Your task to perform on an android device: open app "LiveIn - Share Your Moment" (install if not already installed) and enter user name: "certifies@gmail.com" and password: "compartmented" Image 0: 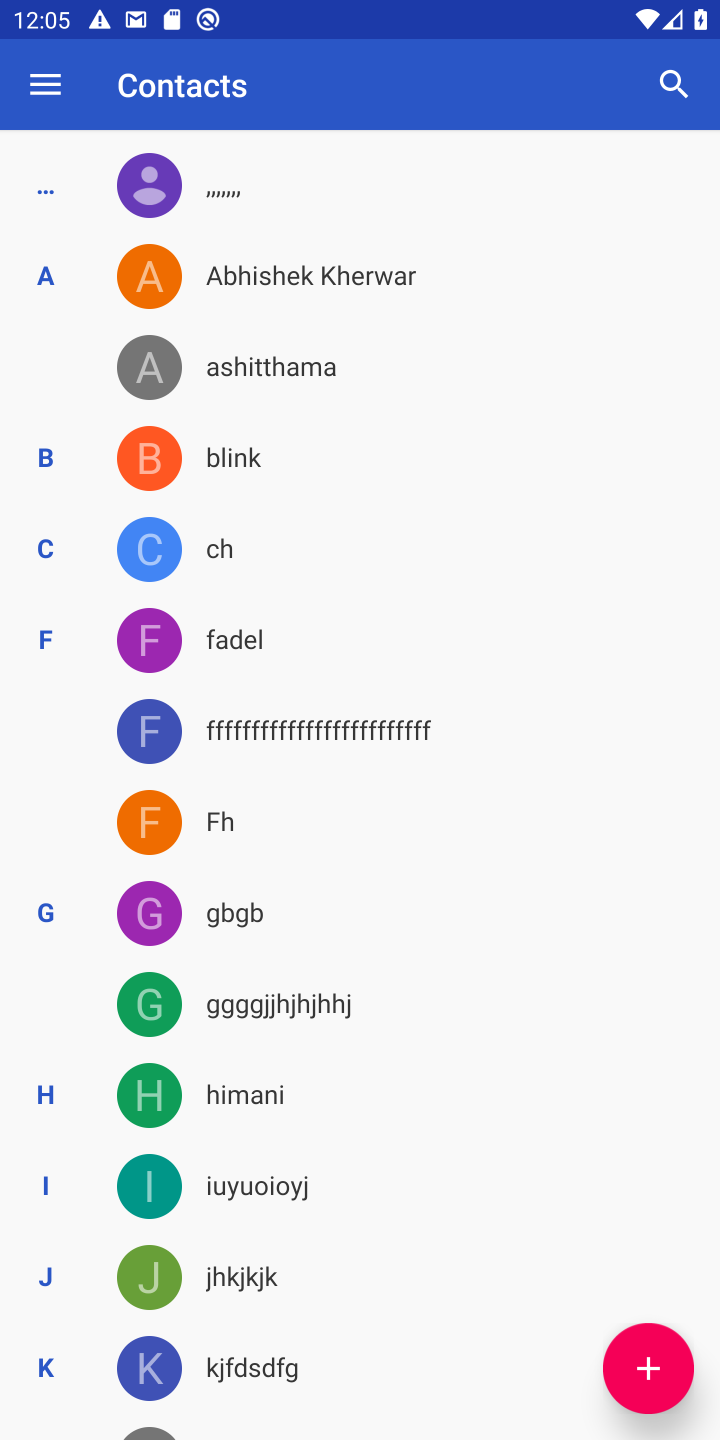
Step 0: press home button
Your task to perform on an android device: open app "LiveIn - Share Your Moment" (install if not already installed) and enter user name: "certifies@gmail.com" and password: "compartmented" Image 1: 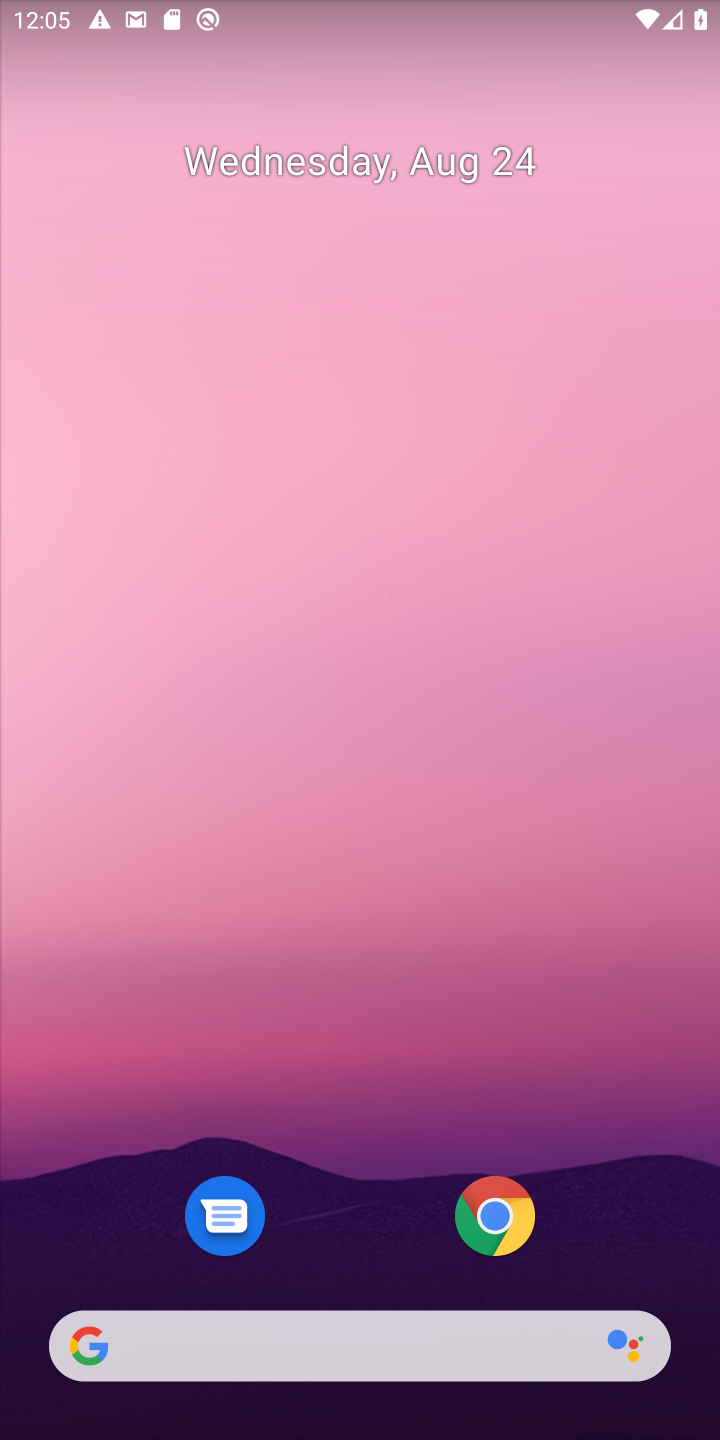
Step 1: drag from (288, 1358) to (577, 216)
Your task to perform on an android device: open app "LiveIn - Share Your Moment" (install if not already installed) and enter user name: "certifies@gmail.com" and password: "compartmented" Image 2: 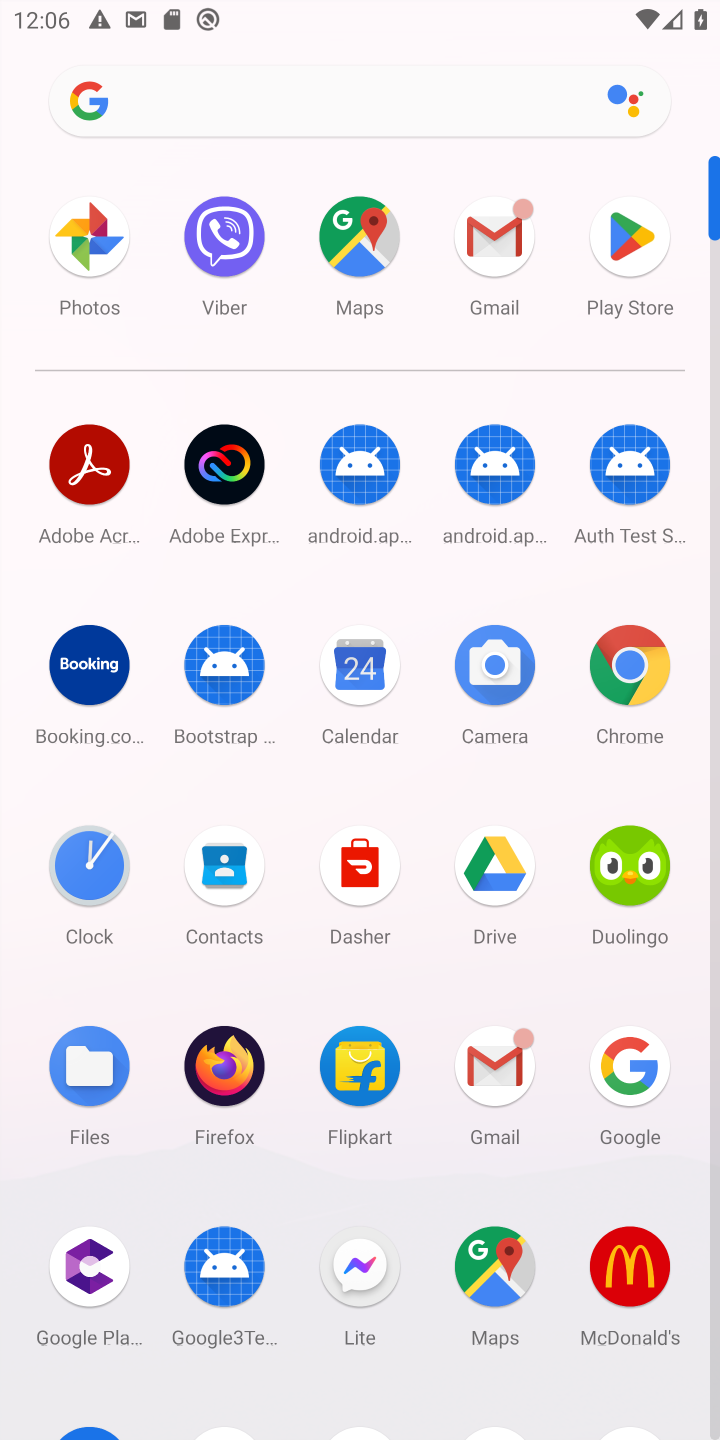
Step 2: click (624, 239)
Your task to perform on an android device: open app "LiveIn - Share Your Moment" (install if not already installed) and enter user name: "certifies@gmail.com" and password: "compartmented" Image 3: 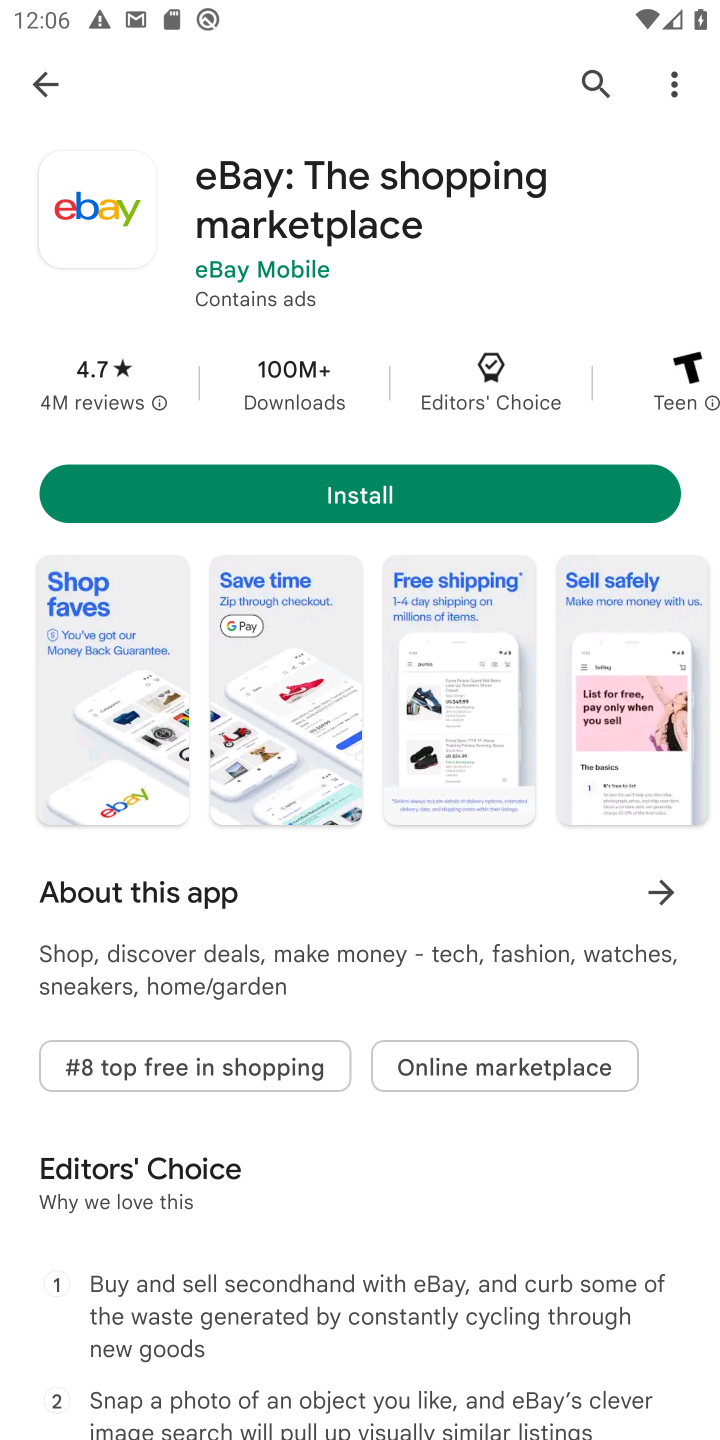
Step 3: press back button
Your task to perform on an android device: open app "LiveIn - Share Your Moment" (install if not already installed) and enter user name: "certifies@gmail.com" and password: "compartmented" Image 4: 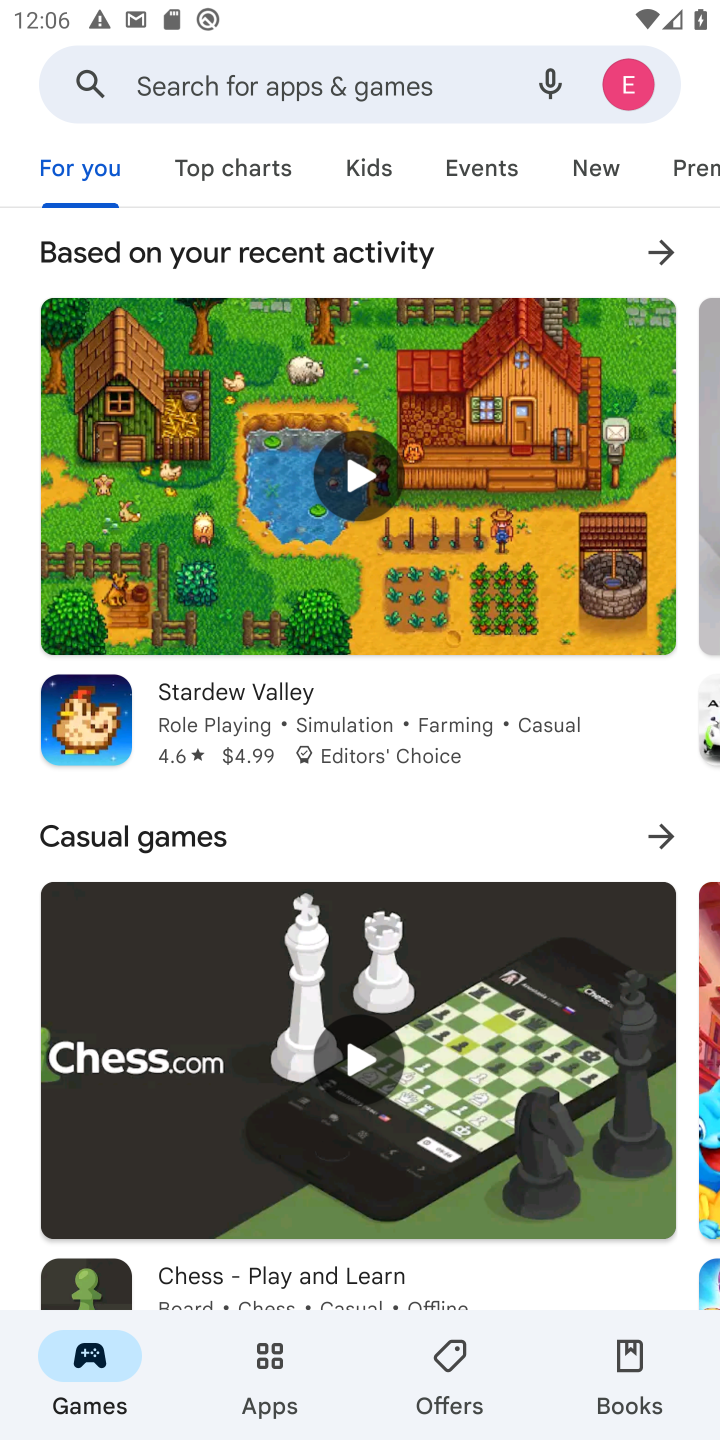
Step 4: click (342, 62)
Your task to perform on an android device: open app "LiveIn - Share Your Moment" (install if not already installed) and enter user name: "certifies@gmail.com" and password: "compartmented" Image 5: 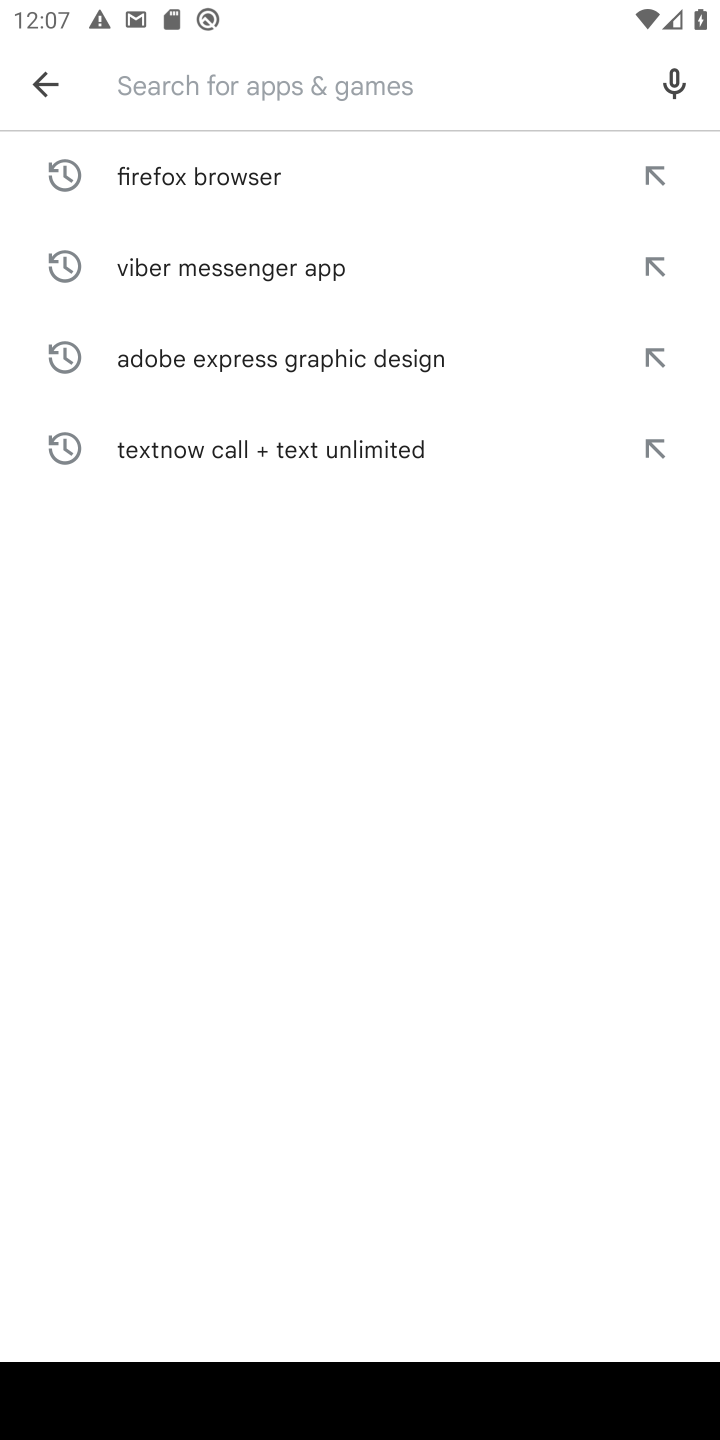
Step 5: type "LiveIn - Share Your Moment"
Your task to perform on an android device: open app "LiveIn - Share Your Moment" (install if not already installed) and enter user name: "certifies@gmail.com" and password: "compartmented" Image 6: 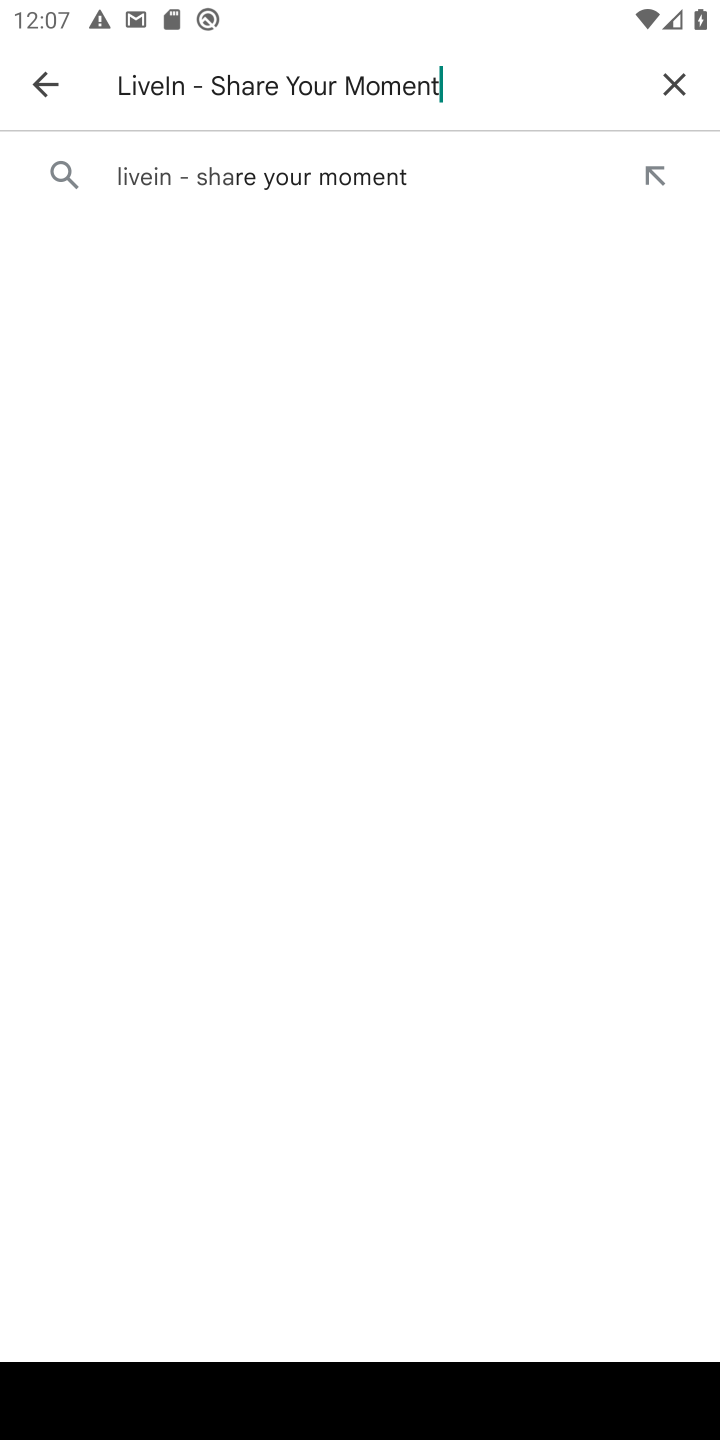
Step 6: type ""
Your task to perform on an android device: open app "LiveIn - Share Your Moment" (install if not already installed) and enter user name: "certifies@gmail.com" and password: "compartmented" Image 7: 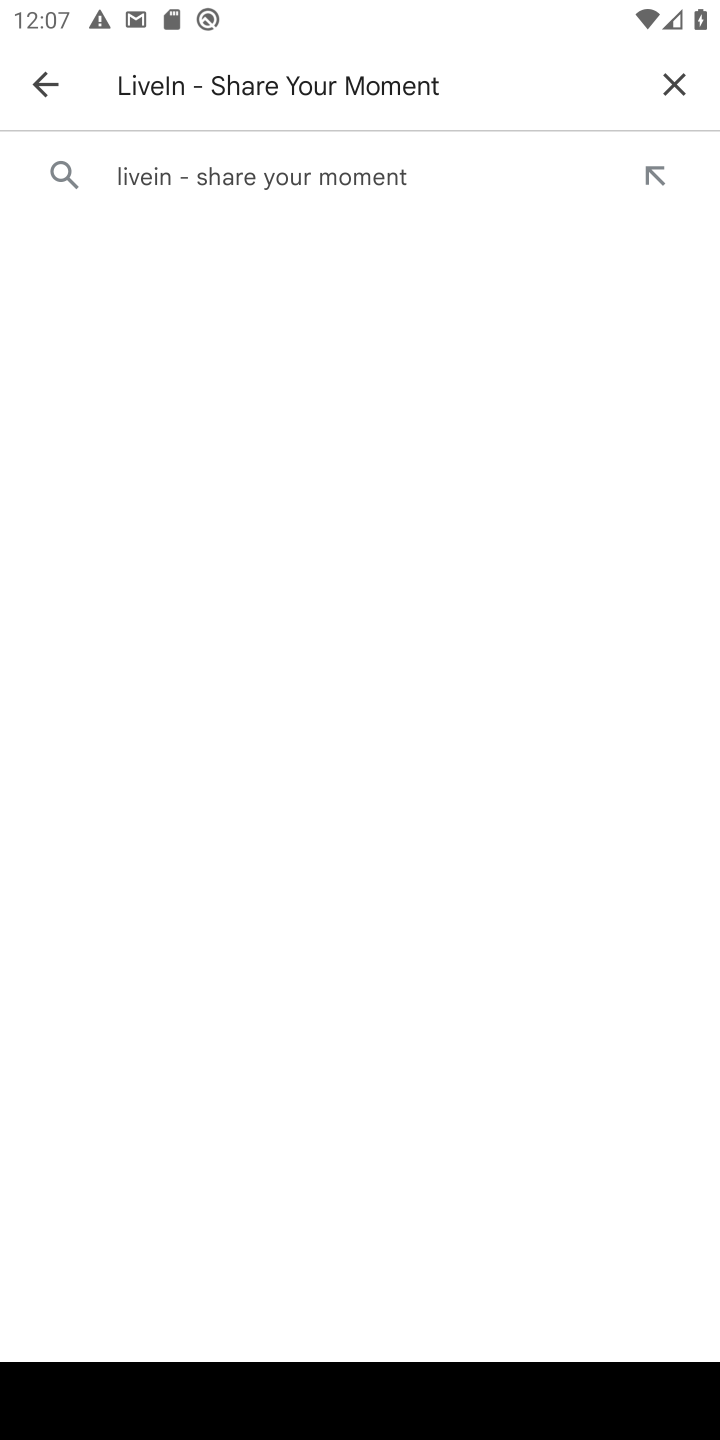
Step 7: click (343, 192)
Your task to perform on an android device: open app "LiveIn - Share Your Moment" (install if not already installed) and enter user name: "certifies@gmail.com" and password: "compartmented" Image 8: 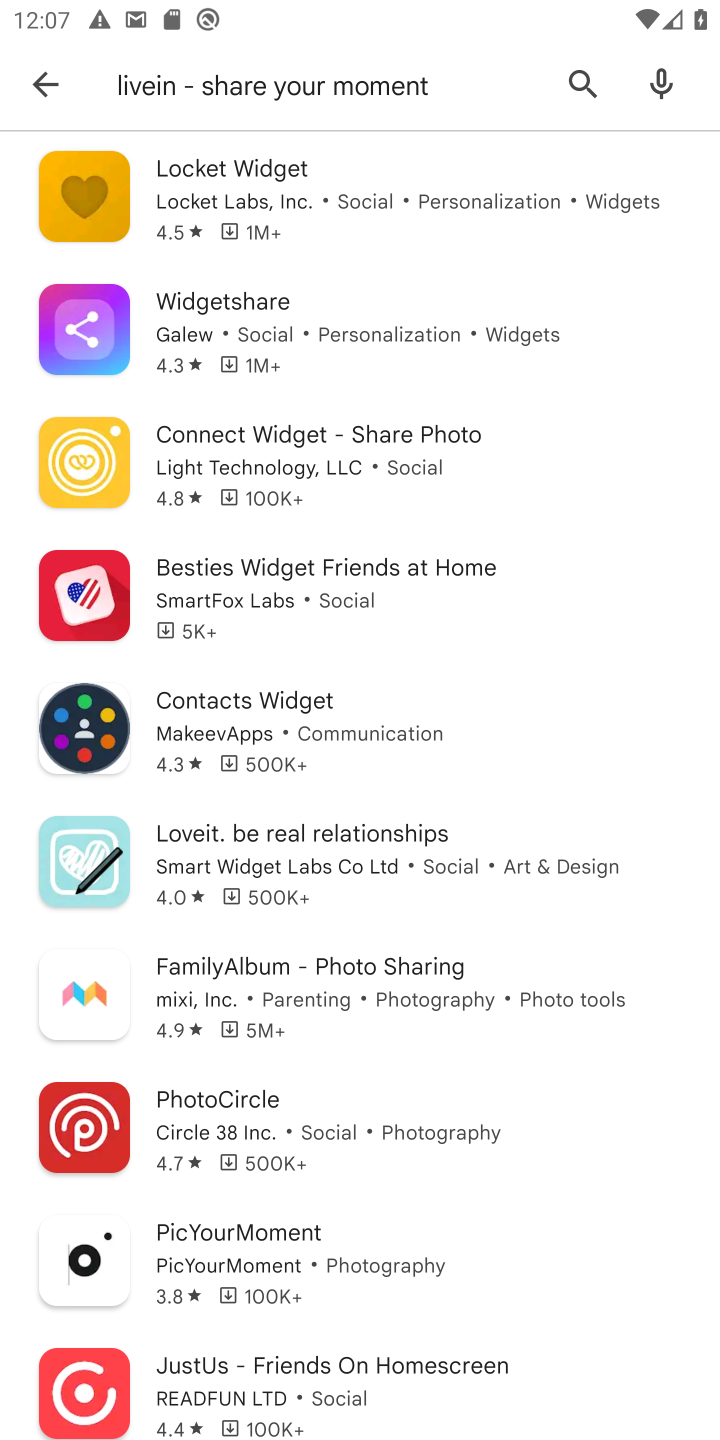
Step 8: task complete